Your task to perform on an android device: Is it going to rain today? Image 0: 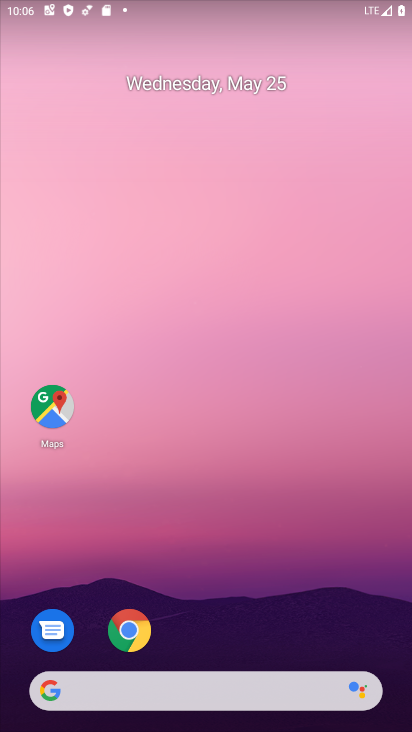
Step 0: click (165, 694)
Your task to perform on an android device: Is it going to rain today? Image 1: 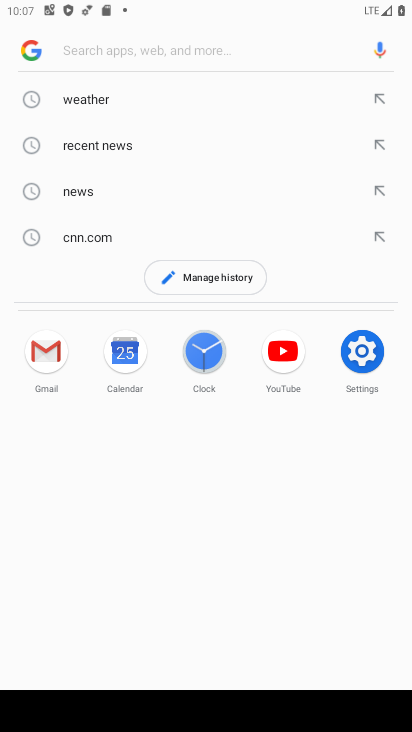
Step 1: click (87, 99)
Your task to perform on an android device: Is it going to rain today? Image 2: 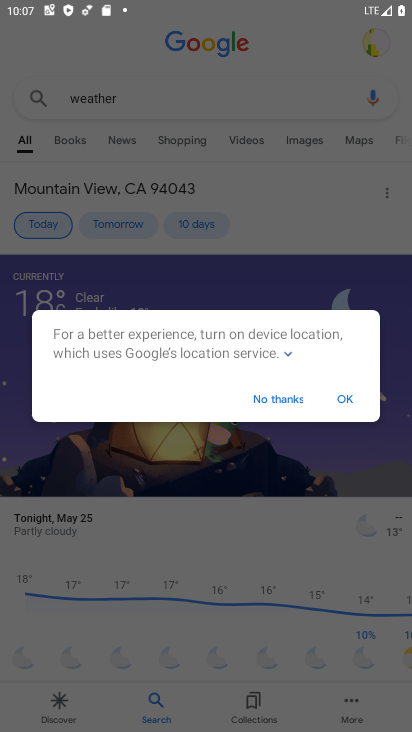
Step 2: click (355, 396)
Your task to perform on an android device: Is it going to rain today? Image 3: 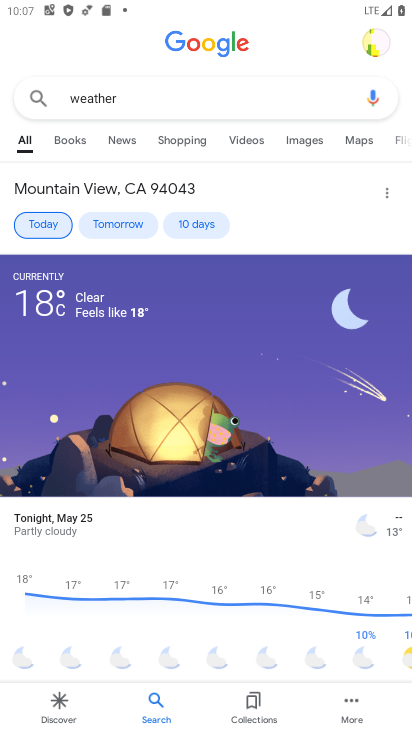
Step 3: task complete